Your task to perform on an android device: delete location history Image 0: 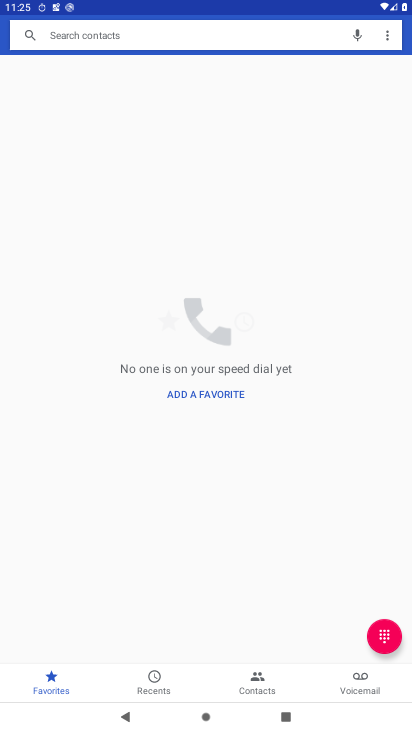
Step 0: press home button
Your task to perform on an android device: delete location history Image 1: 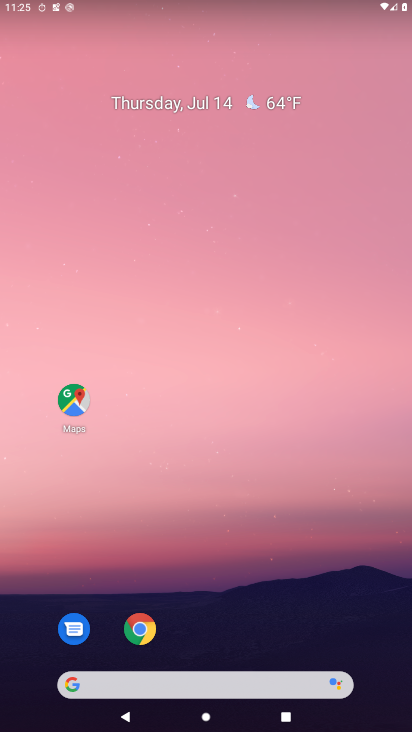
Step 1: drag from (225, 666) to (229, 253)
Your task to perform on an android device: delete location history Image 2: 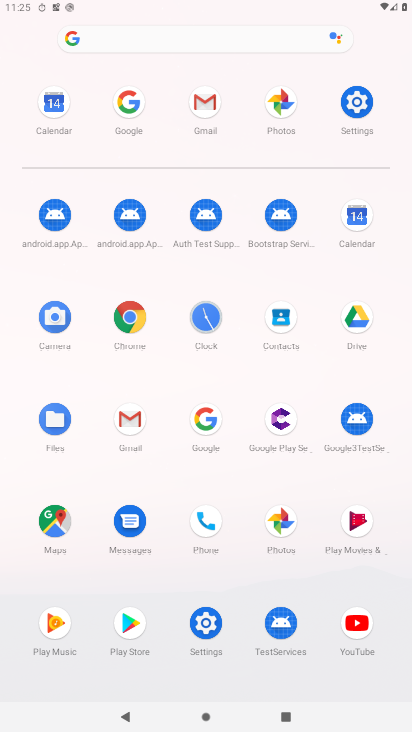
Step 2: click (353, 111)
Your task to perform on an android device: delete location history Image 3: 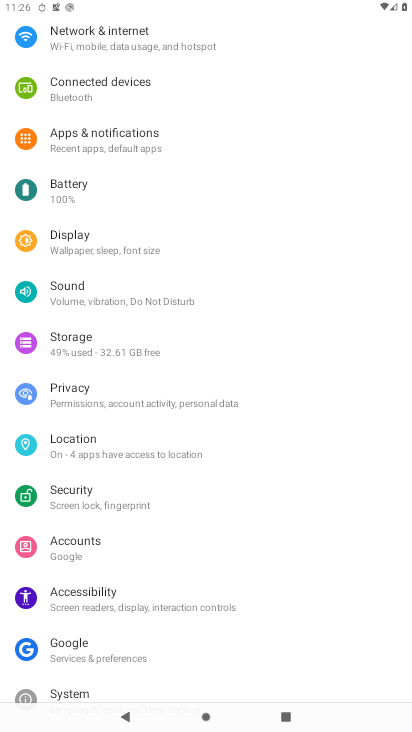
Step 3: drag from (113, 682) to (146, 421)
Your task to perform on an android device: delete location history Image 4: 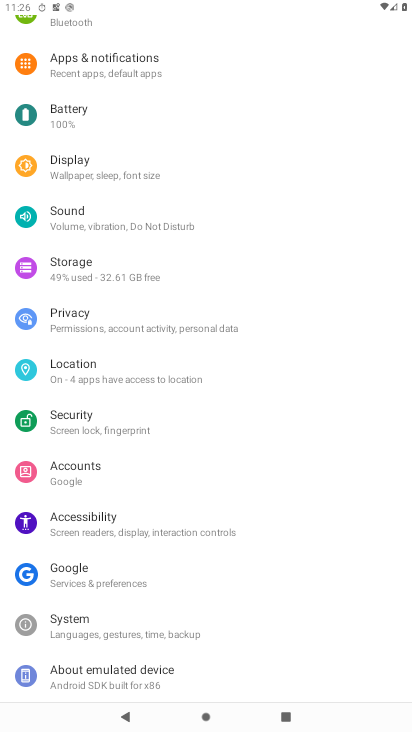
Step 4: click (76, 371)
Your task to perform on an android device: delete location history Image 5: 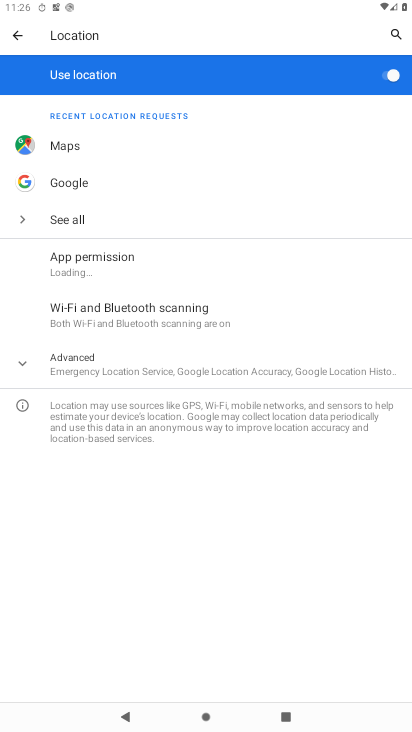
Step 5: click (106, 368)
Your task to perform on an android device: delete location history Image 6: 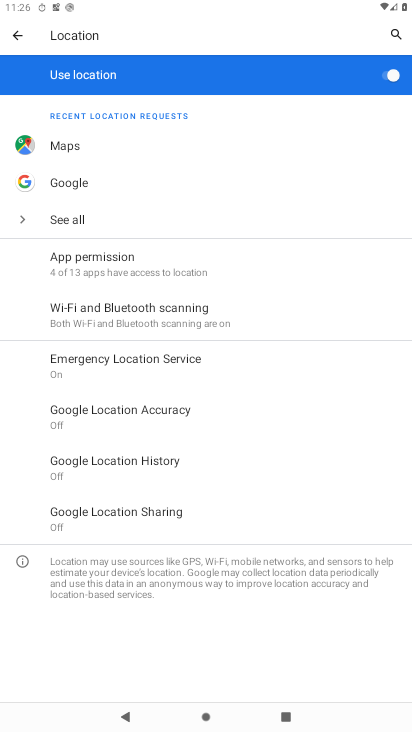
Step 6: click (159, 467)
Your task to perform on an android device: delete location history Image 7: 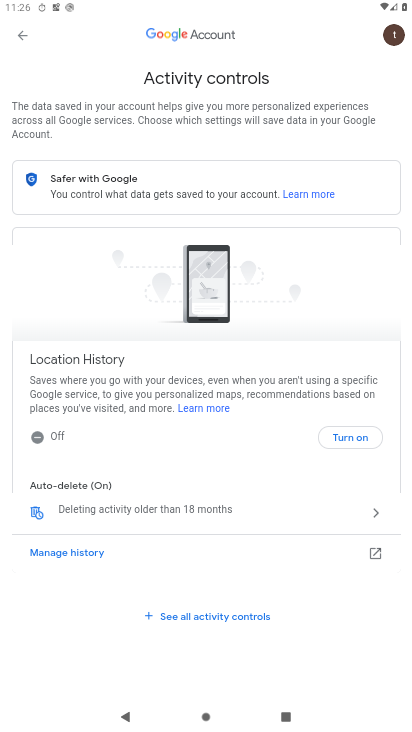
Step 7: click (200, 506)
Your task to perform on an android device: delete location history Image 8: 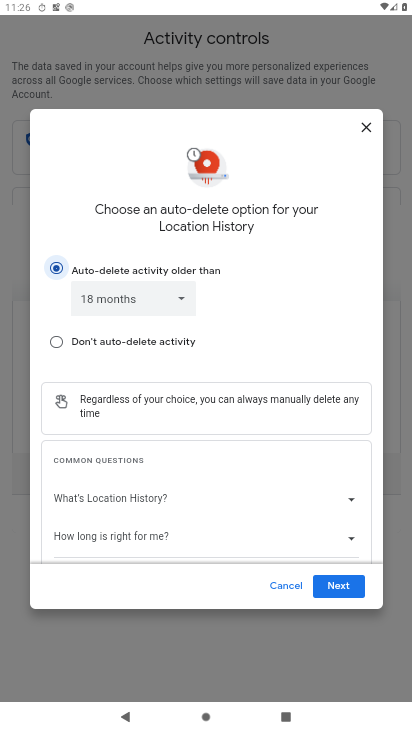
Step 8: click (344, 585)
Your task to perform on an android device: delete location history Image 9: 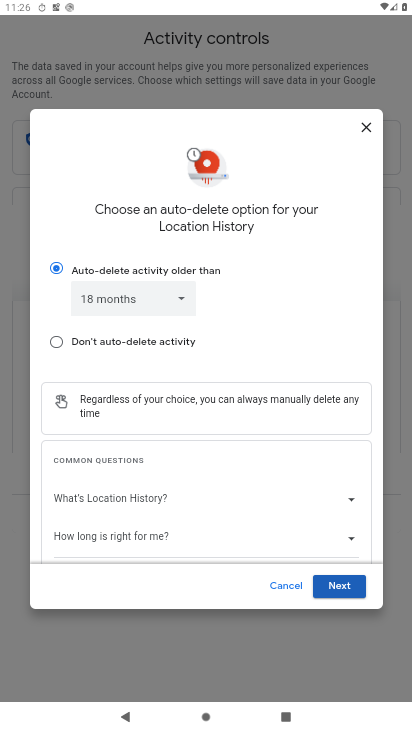
Step 9: click (344, 585)
Your task to perform on an android device: delete location history Image 10: 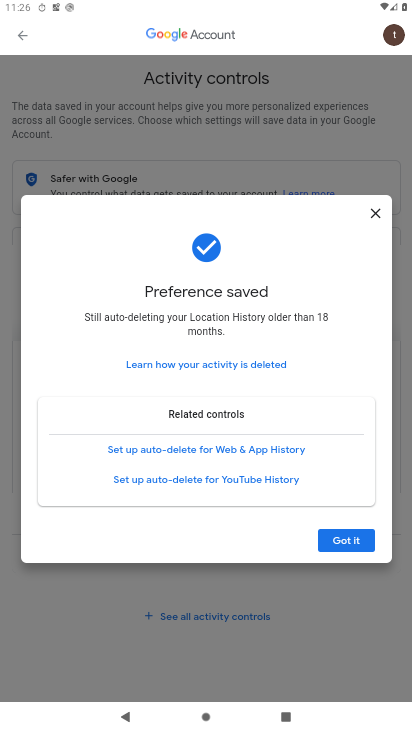
Step 10: click (348, 536)
Your task to perform on an android device: delete location history Image 11: 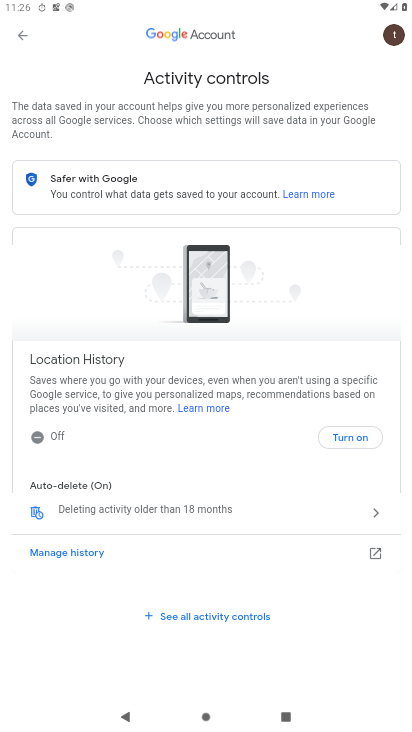
Step 11: task complete